Your task to perform on an android device: check the backup settings in the google photos Image 0: 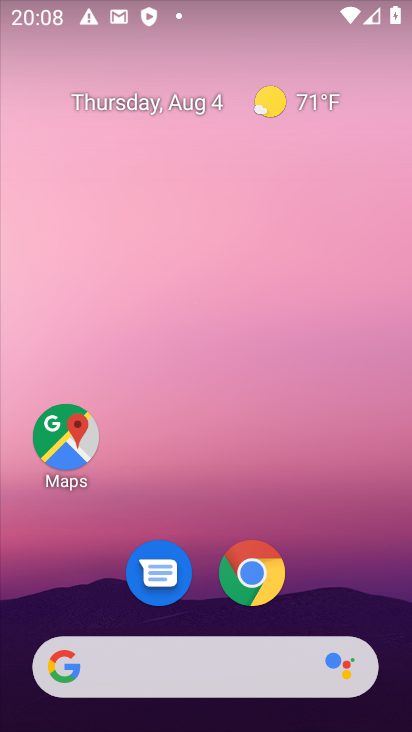
Step 0: drag from (251, 664) to (250, 169)
Your task to perform on an android device: check the backup settings in the google photos Image 1: 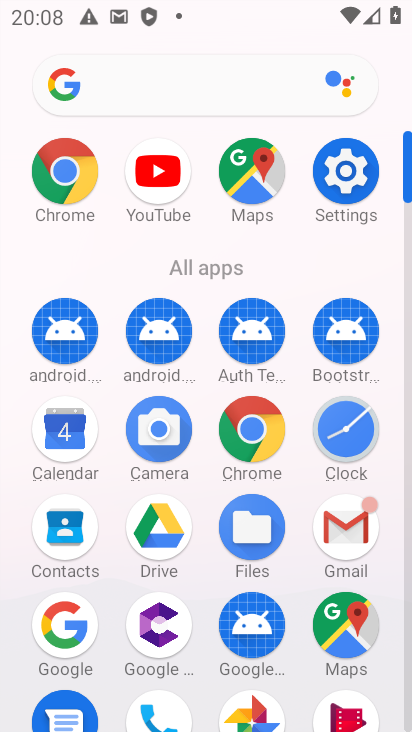
Step 1: click (262, 704)
Your task to perform on an android device: check the backup settings in the google photos Image 2: 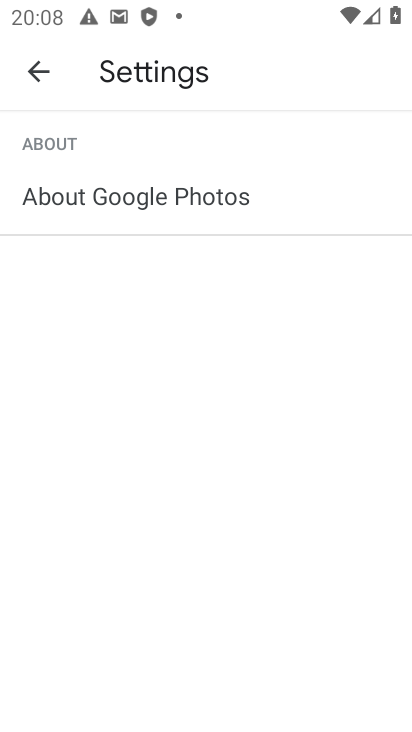
Step 2: click (36, 66)
Your task to perform on an android device: check the backup settings in the google photos Image 3: 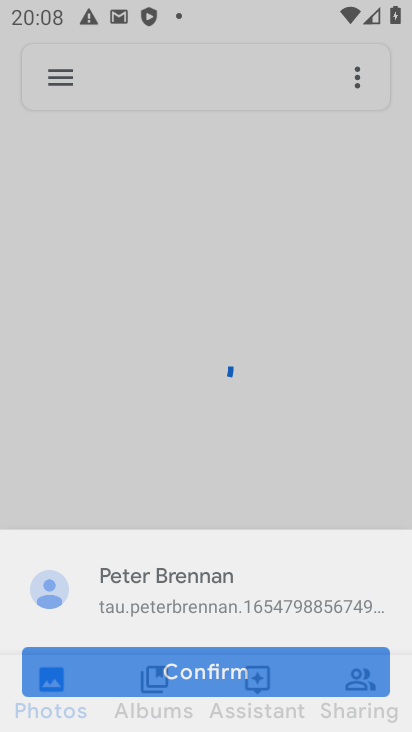
Step 3: click (65, 79)
Your task to perform on an android device: check the backup settings in the google photos Image 4: 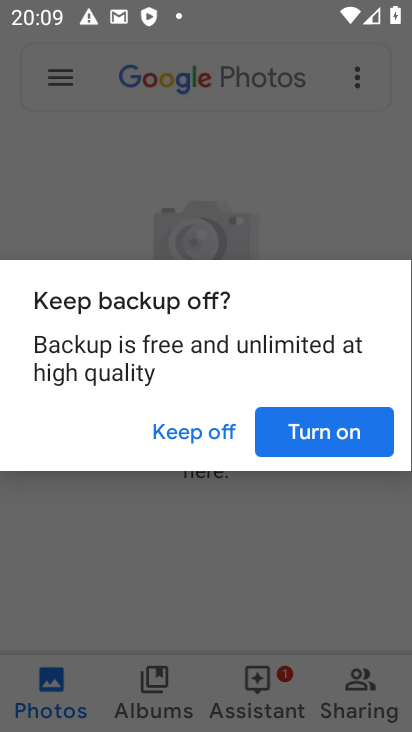
Step 4: click (304, 437)
Your task to perform on an android device: check the backup settings in the google photos Image 5: 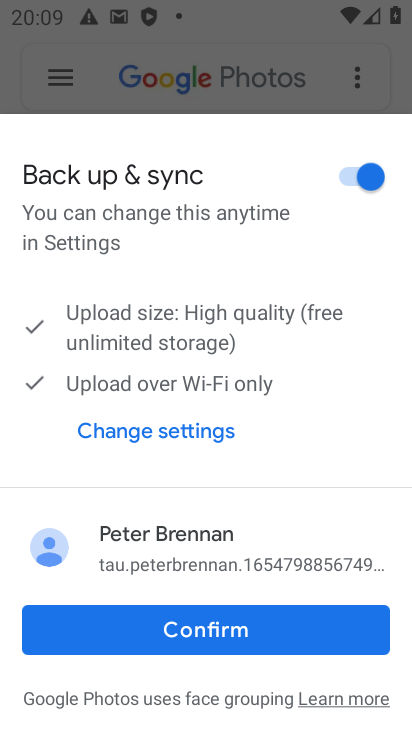
Step 5: click (220, 632)
Your task to perform on an android device: check the backup settings in the google photos Image 6: 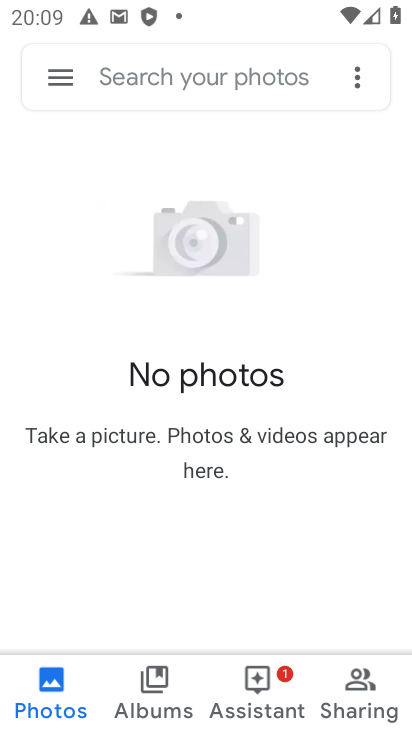
Step 6: click (63, 79)
Your task to perform on an android device: check the backup settings in the google photos Image 7: 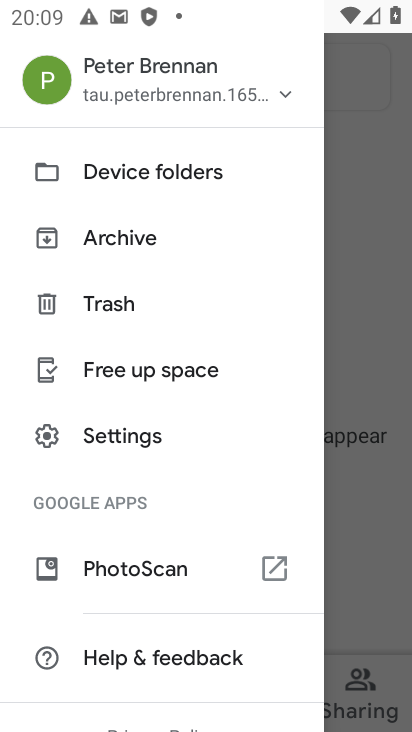
Step 7: drag from (157, 604) to (118, 187)
Your task to perform on an android device: check the backup settings in the google photos Image 8: 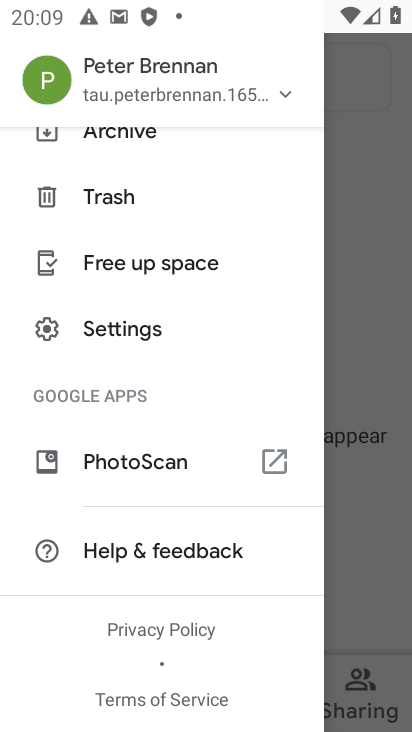
Step 8: click (113, 336)
Your task to perform on an android device: check the backup settings in the google photos Image 9: 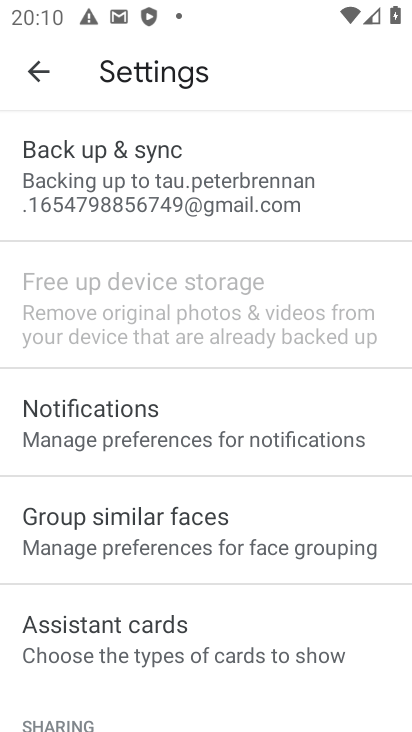
Step 9: click (244, 173)
Your task to perform on an android device: check the backup settings in the google photos Image 10: 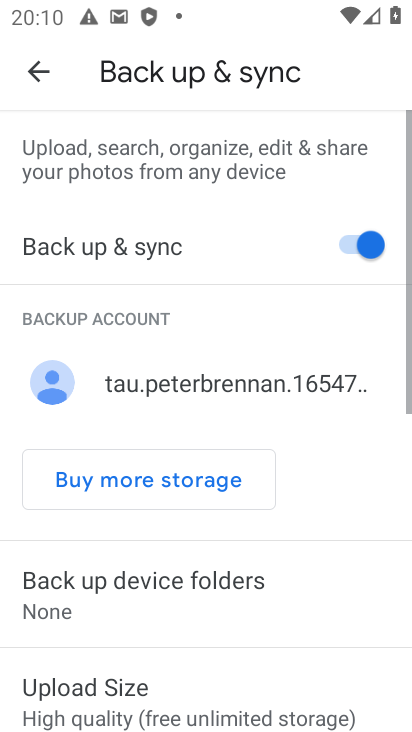
Step 10: task complete